Your task to perform on an android device: set the timer Image 0: 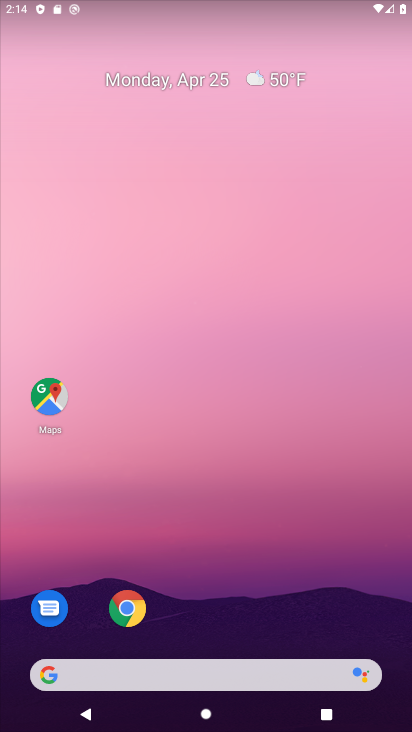
Step 0: drag from (206, 642) to (235, 186)
Your task to perform on an android device: set the timer Image 1: 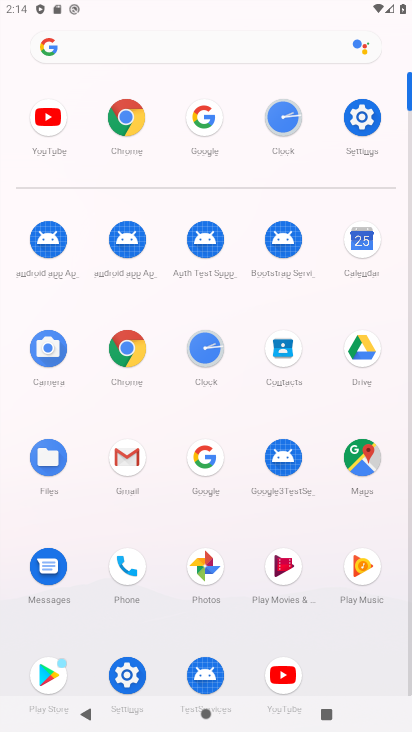
Step 1: click (285, 136)
Your task to perform on an android device: set the timer Image 2: 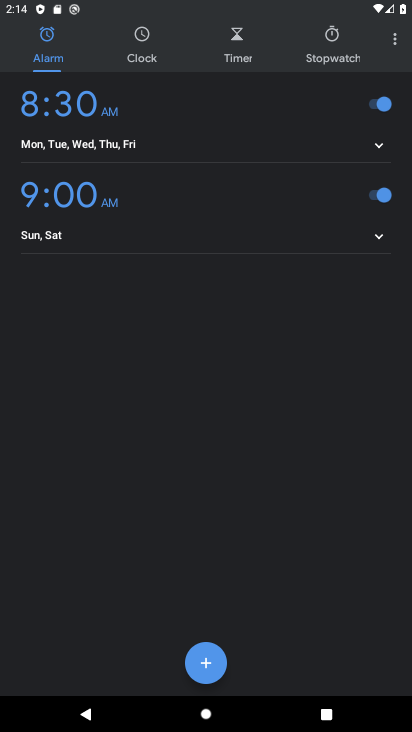
Step 2: click (241, 48)
Your task to perform on an android device: set the timer Image 3: 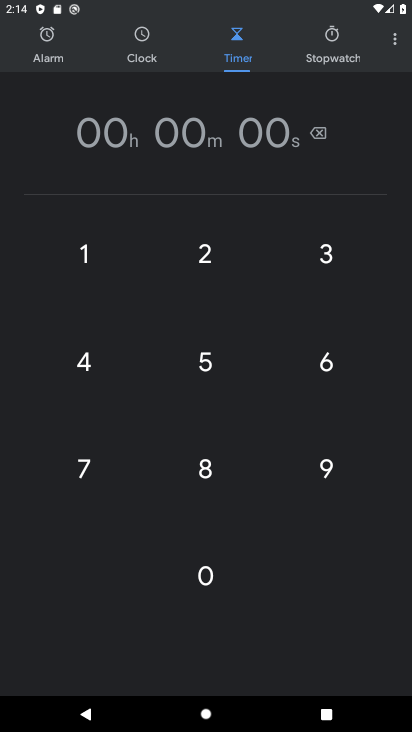
Step 3: click (260, 118)
Your task to perform on an android device: set the timer Image 4: 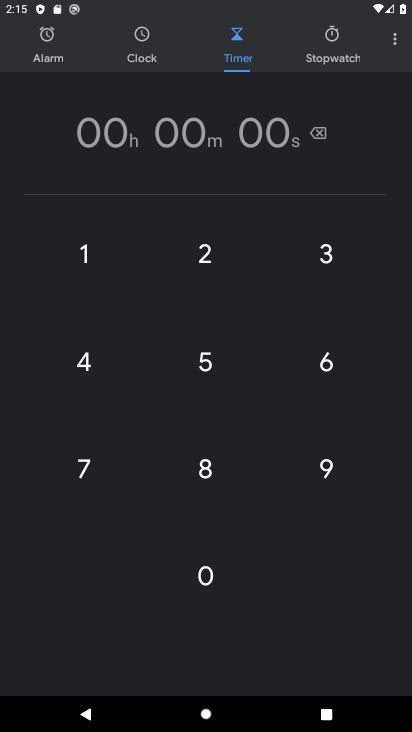
Step 4: type "54"
Your task to perform on an android device: set the timer Image 5: 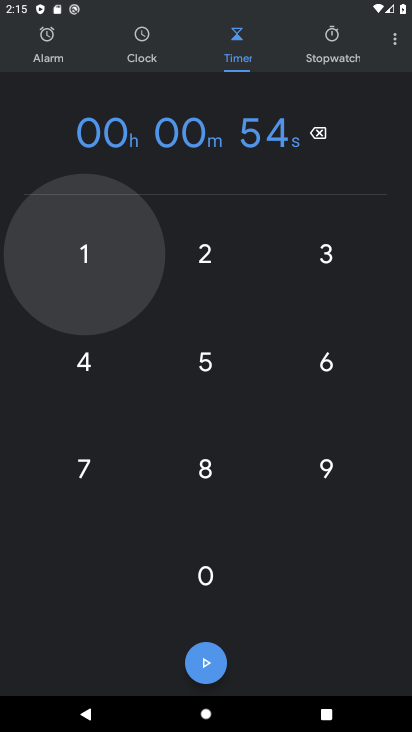
Step 5: click (209, 655)
Your task to perform on an android device: set the timer Image 6: 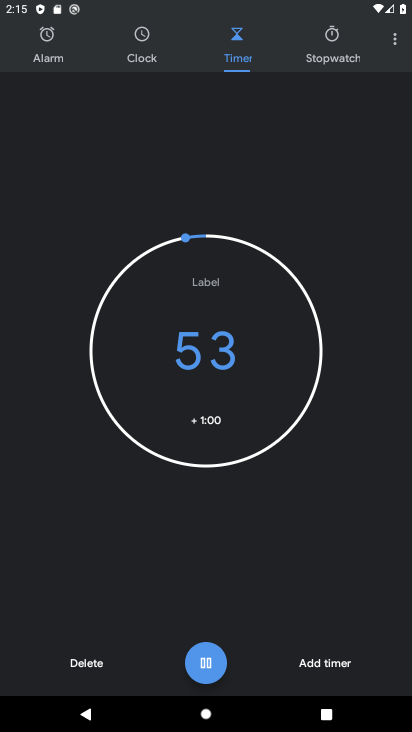
Step 6: task complete